Your task to perform on an android device: open app "Google Sheets" Image 0: 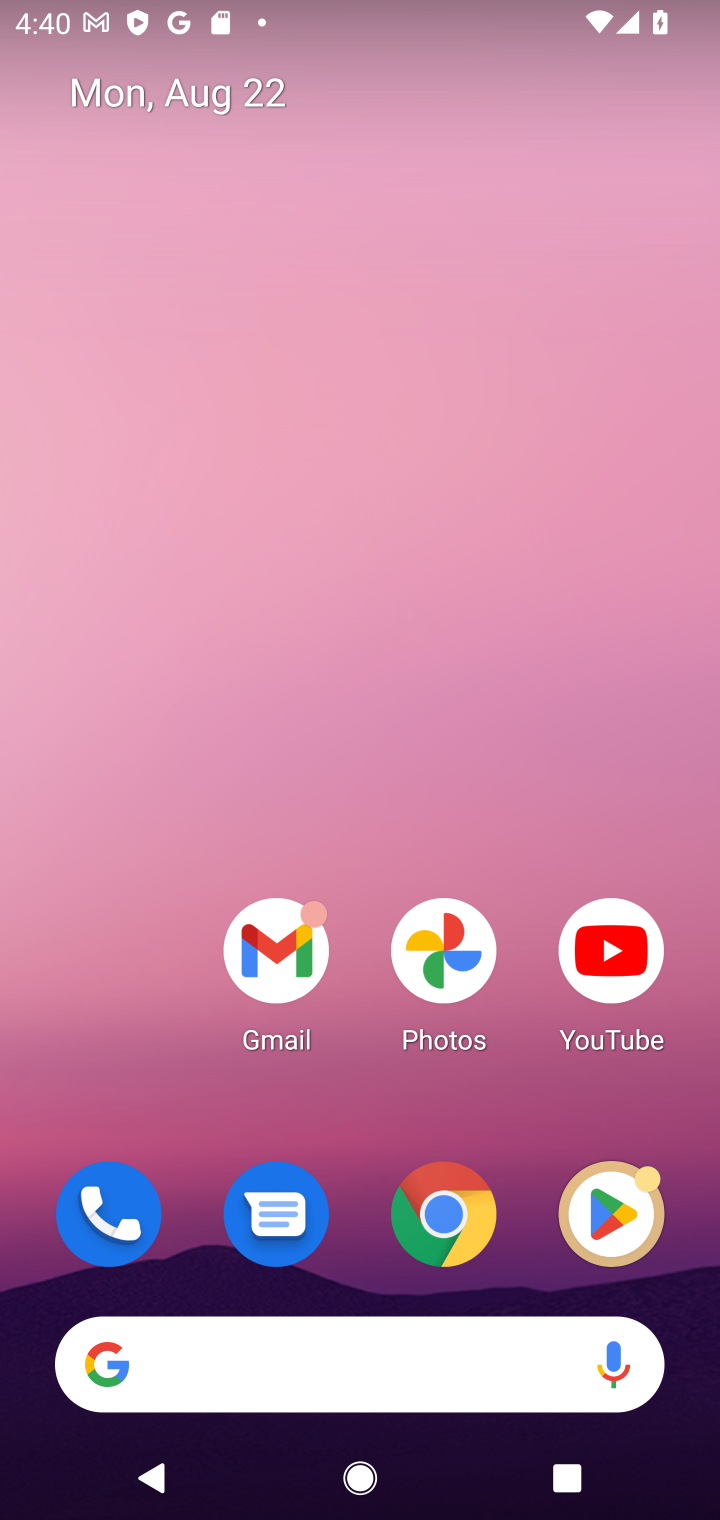
Step 0: drag from (533, 1250) to (483, 109)
Your task to perform on an android device: open app "Google Sheets" Image 1: 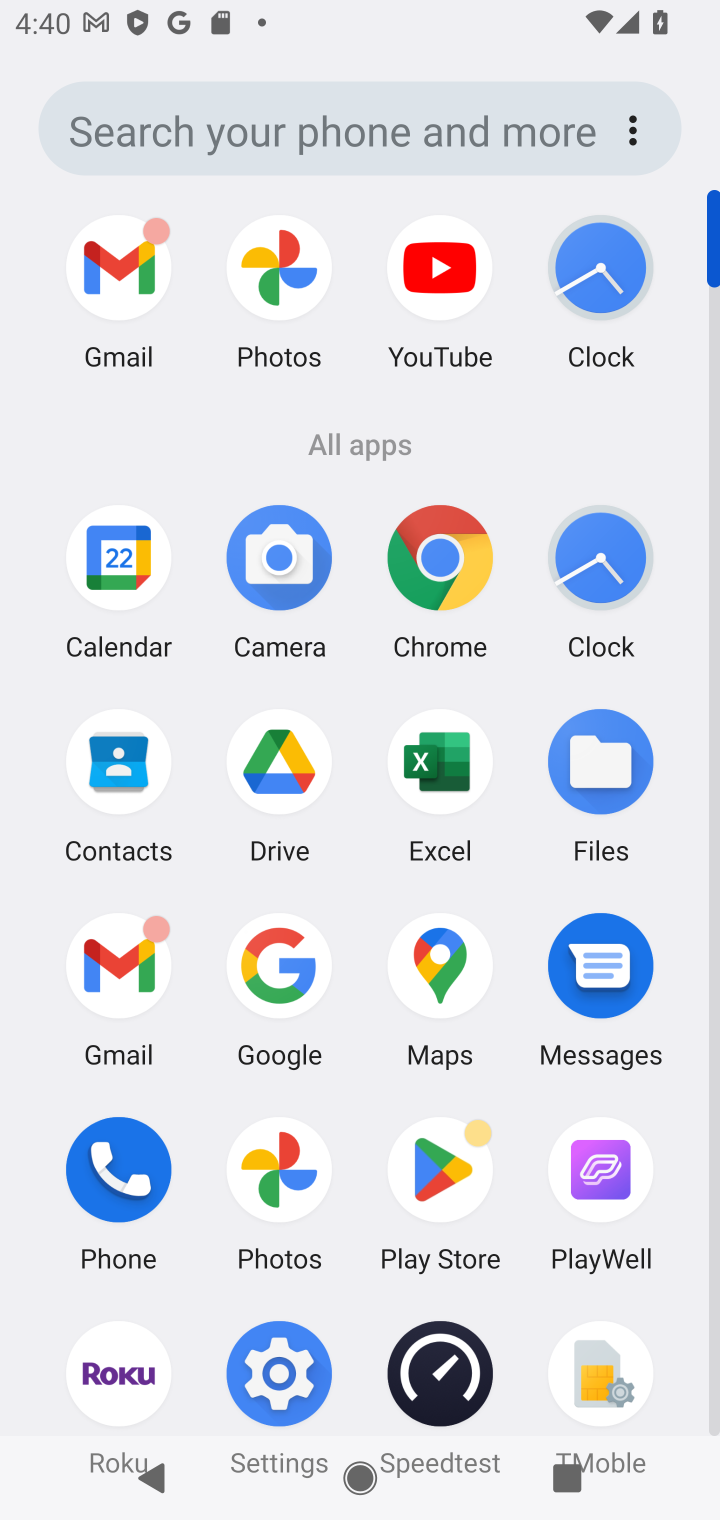
Step 1: click (464, 1176)
Your task to perform on an android device: open app "Google Sheets" Image 2: 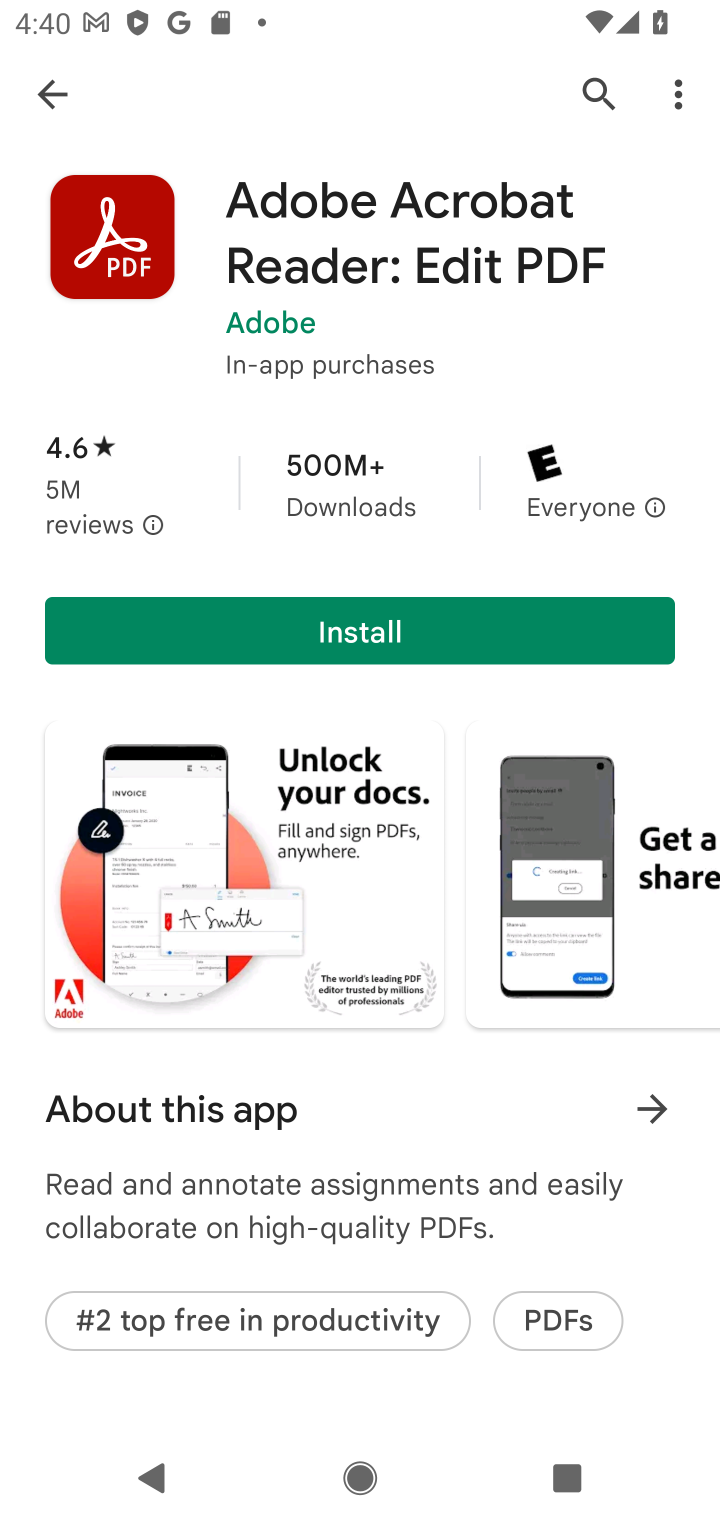
Step 2: click (589, 89)
Your task to perform on an android device: open app "Google Sheets" Image 3: 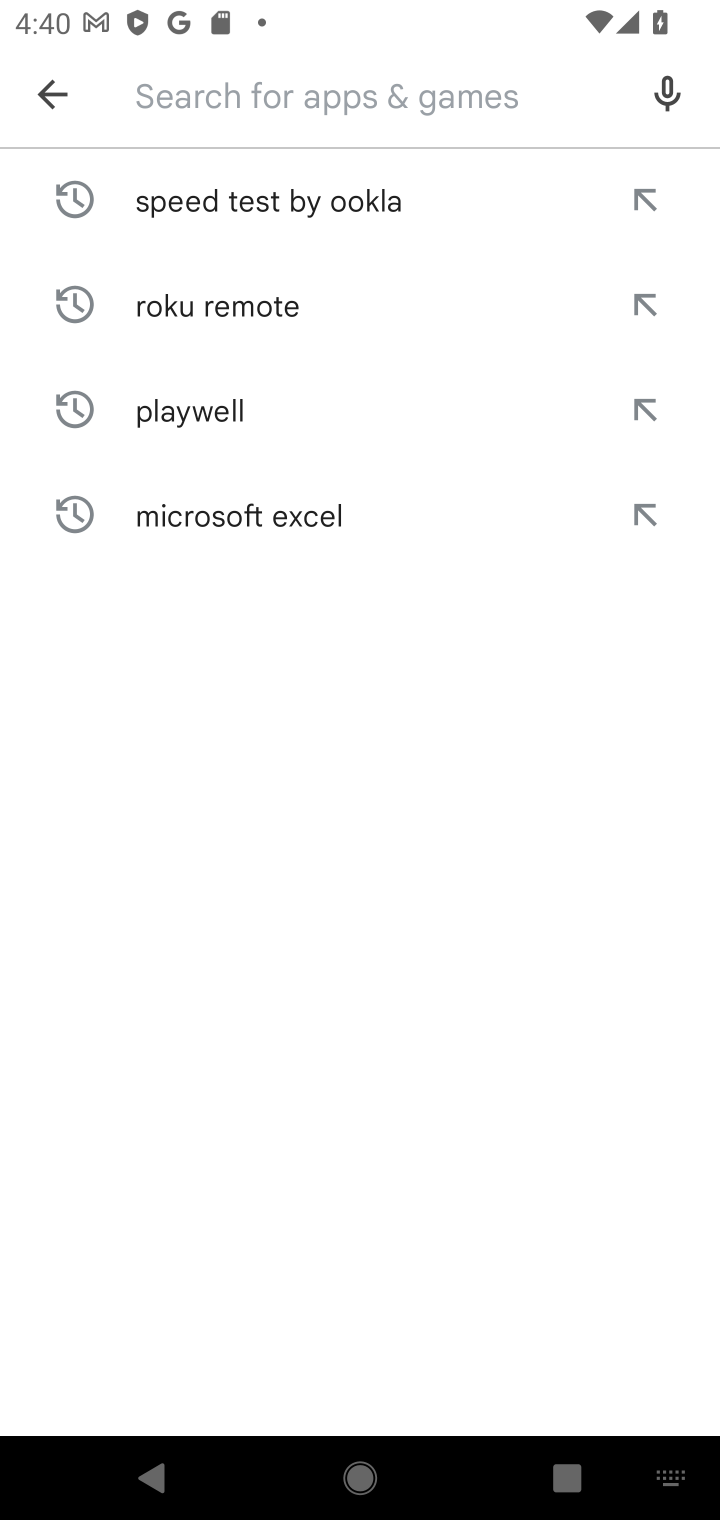
Step 3: type "Google sheets"
Your task to perform on an android device: open app "Google Sheets" Image 4: 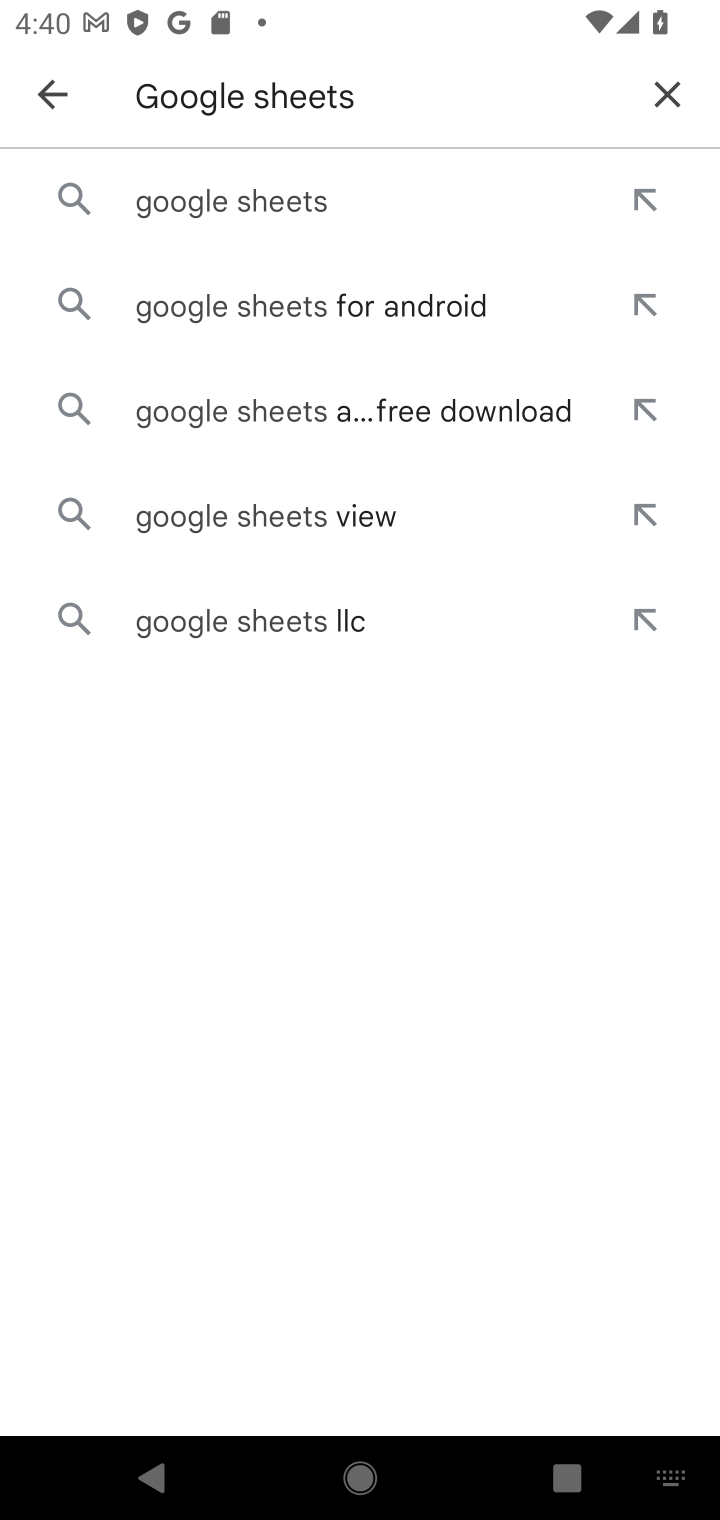
Step 4: click (196, 194)
Your task to perform on an android device: open app "Google Sheets" Image 5: 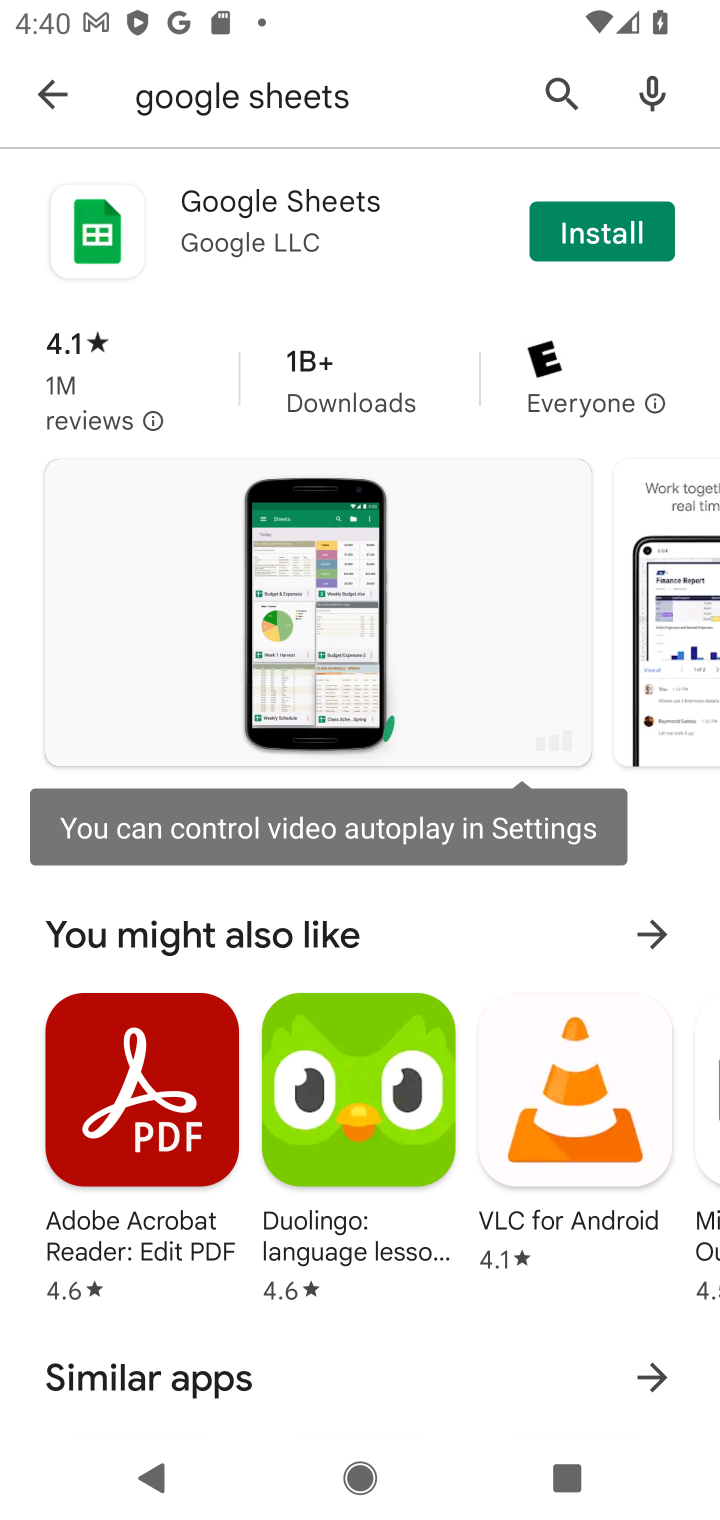
Step 5: task complete